Your task to perform on an android device: Go to battery settings Image 0: 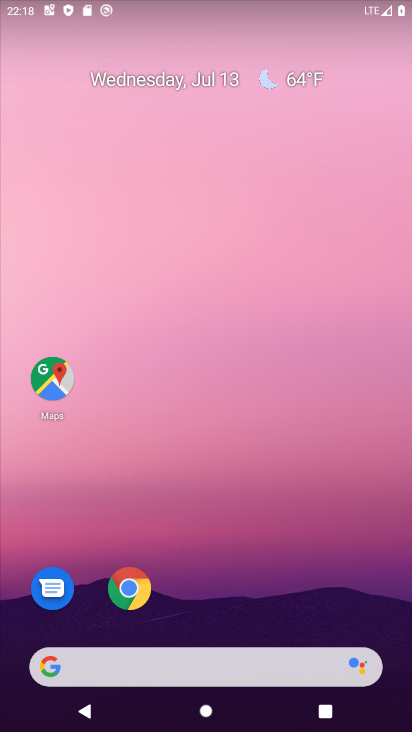
Step 0: drag from (294, 437) to (303, 117)
Your task to perform on an android device: Go to battery settings Image 1: 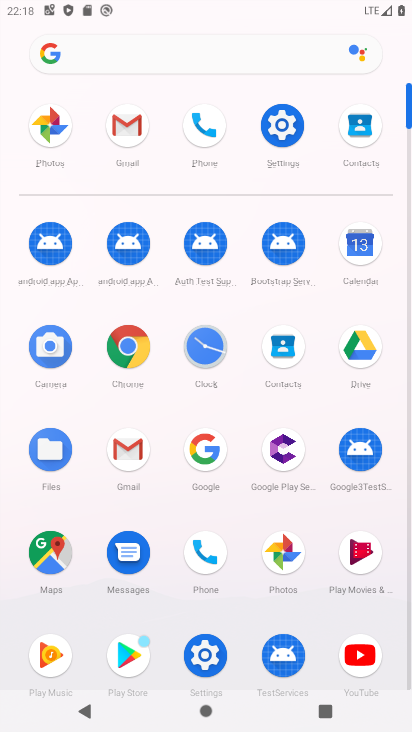
Step 1: click (283, 132)
Your task to perform on an android device: Go to battery settings Image 2: 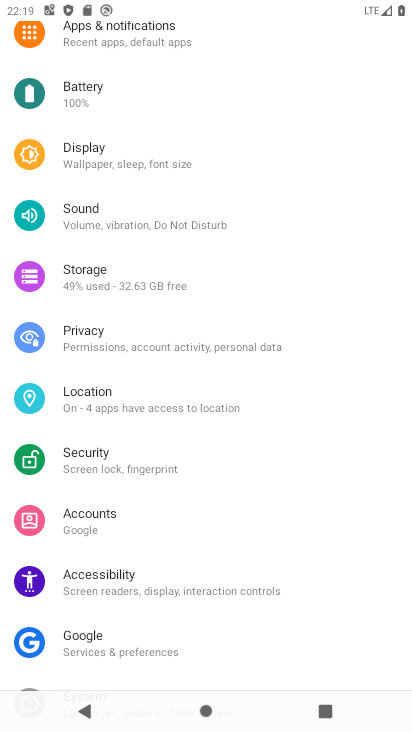
Step 2: click (114, 90)
Your task to perform on an android device: Go to battery settings Image 3: 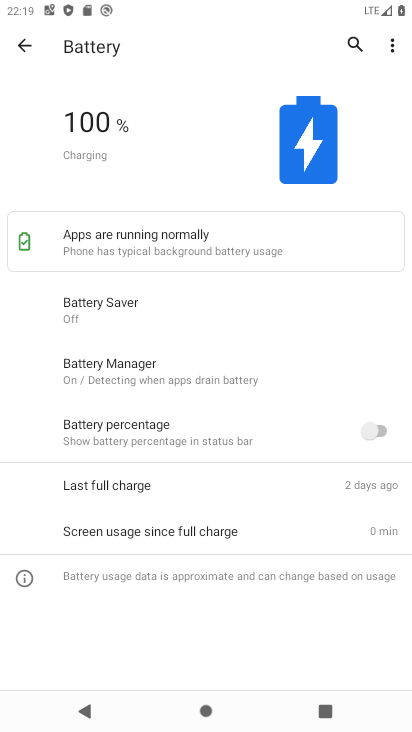
Step 3: task complete